Your task to perform on an android device: toggle improve location accuracy Image 0: 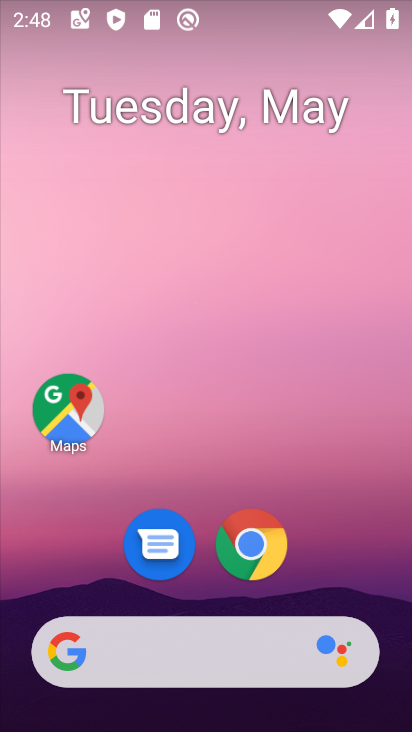
Step 0: drag from (332, 553) to (302, 78)
Your task to perform on an android device: toggle improve location accuracy Image 1: 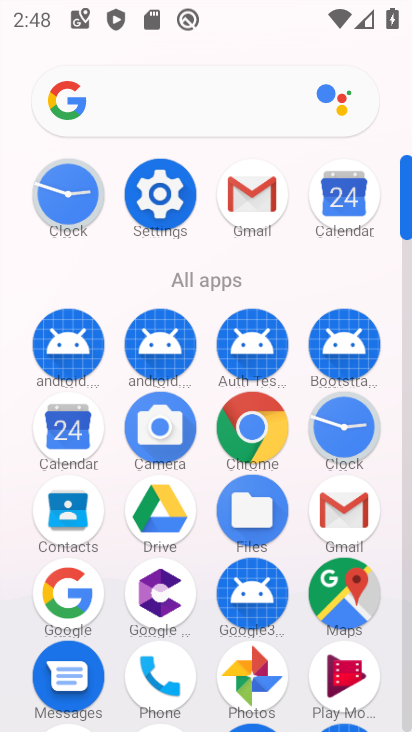
Step 1: click (160, 195)
Your task to perform on an android device: toggle improve location accuracy Image 2: 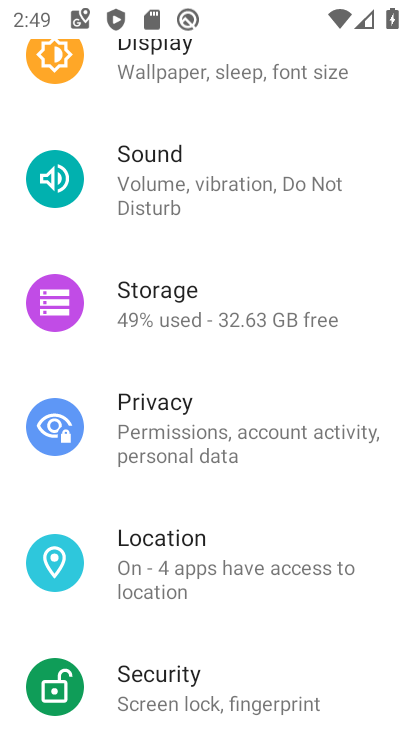
Step 2: click (171, 539)
Your task to perform on an android device: toggle improve location accuracy Image 3: 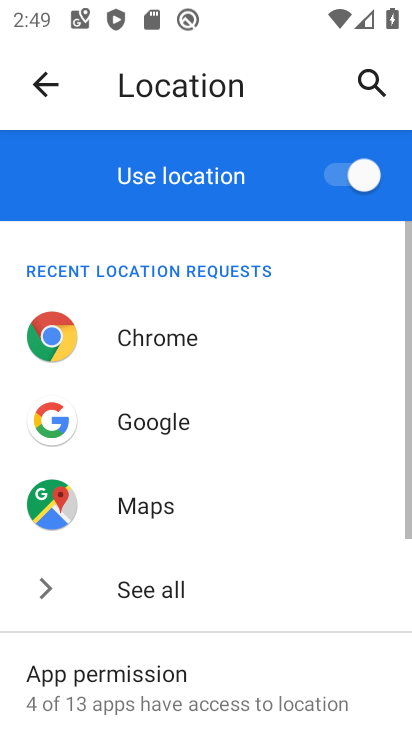
Step 3: drag from (209, 657) to (265, 523)
Your task to perform on an android device: toggle improve location accuracy Image 4: 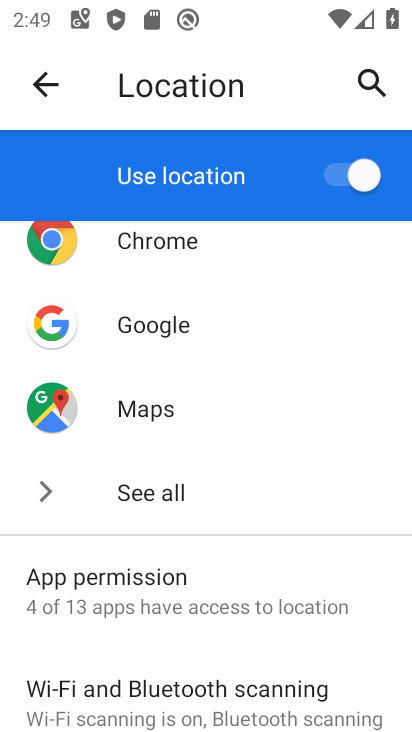
Step 4: drag from (170, 646) to (271, 499)
Your task to perform on an android device: toggle improve location accuracy Image 5: 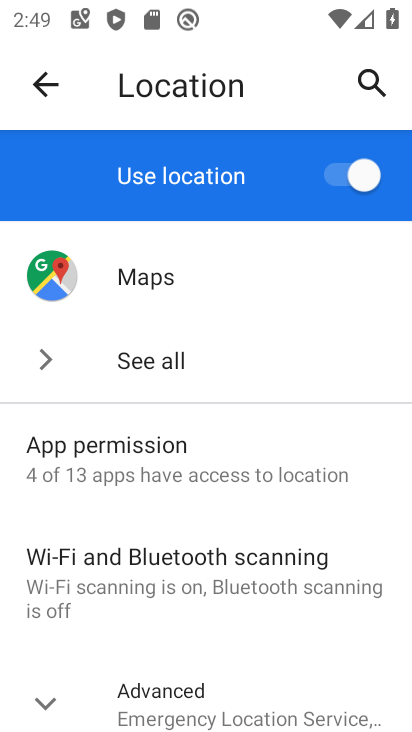
Step 5: drag from (215, 672) to (306, 561)
Your task to perform on an android device: toggle improve location accuracy Image 6: 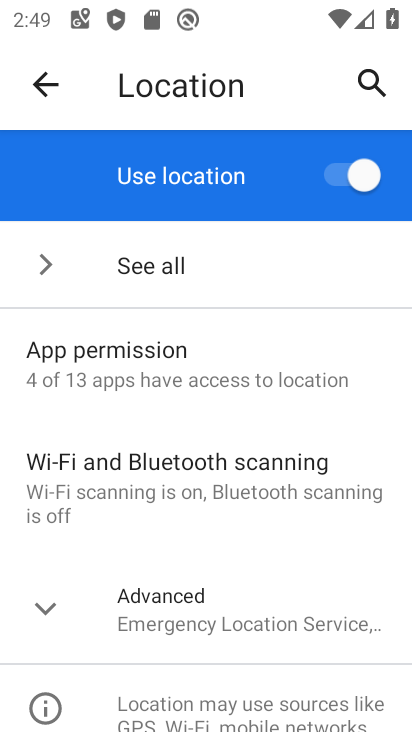
Step 6: click (242, 627)
Your task to perform on an android device: toggle improve location accuracy Image 7: 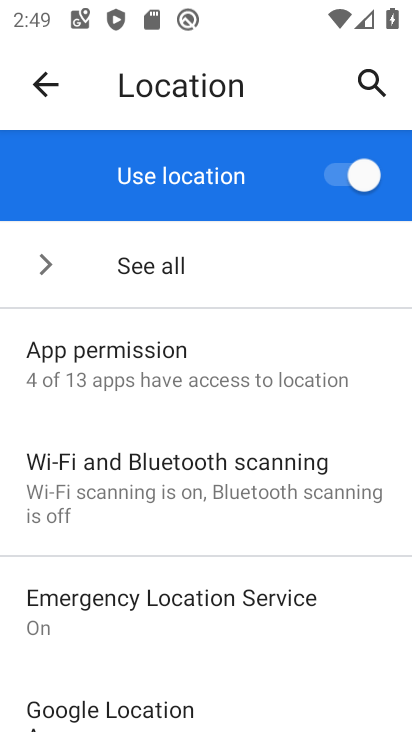
Step 7: drag from (181, 641) to (231, 505)
Your task to perform on an android device: toggle improve location accuracy Image 8: 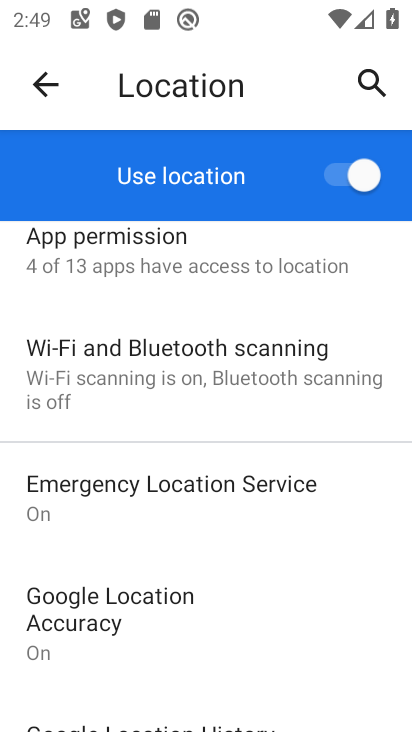
Step 8: click (136, 599)
Your task to perform on an android device: toggle improve location accuracy Image 9: 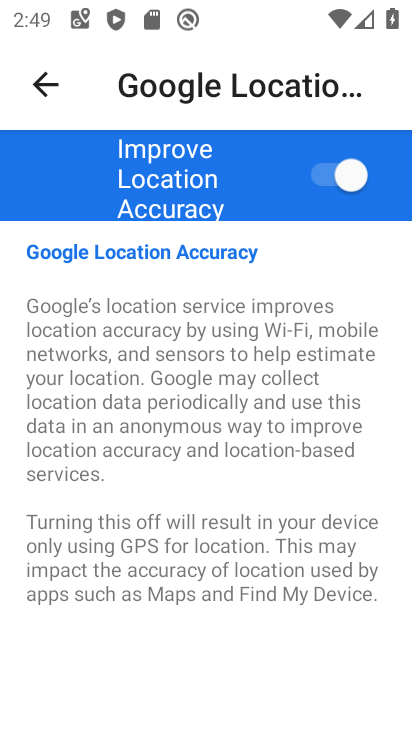
Step 9: click (328, 179)
Your task to perform on an android device: toggle improve location accuracy Image 10: 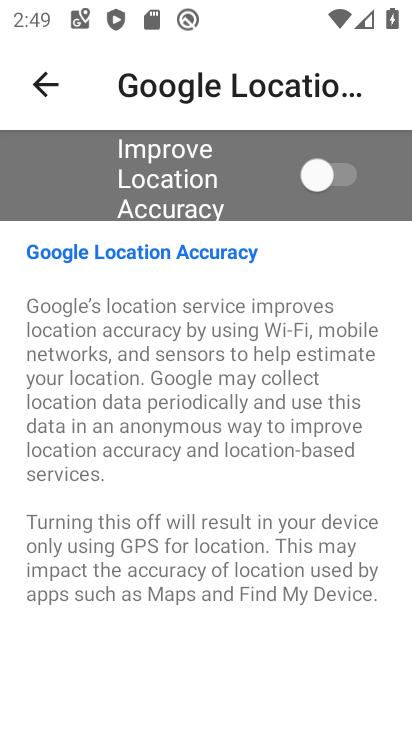
Step 10: task complete